Your task to perform on an android device: clear all cookies in the chrome app Image 0: 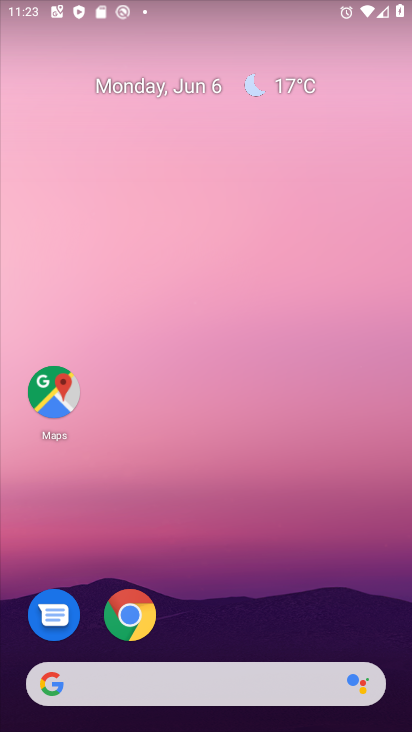
Step 0: click (128, 609)
Your task to perform on an android device: clear all cookies in the chrome app Image 1: 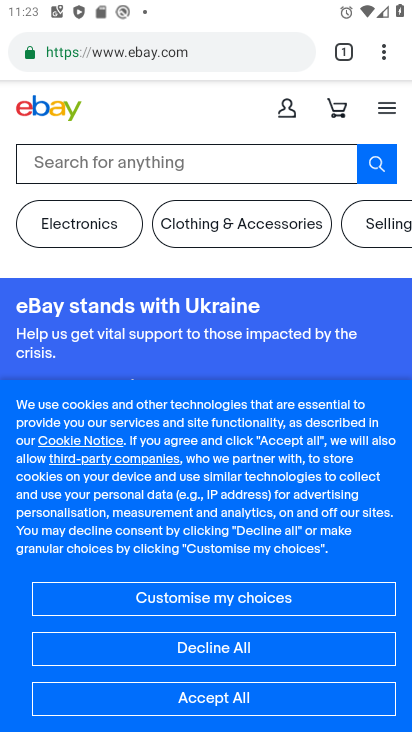
Step 1: click (208, 696)
Your task to perform on an android device: clear all cookies in the chrome app Image 2: 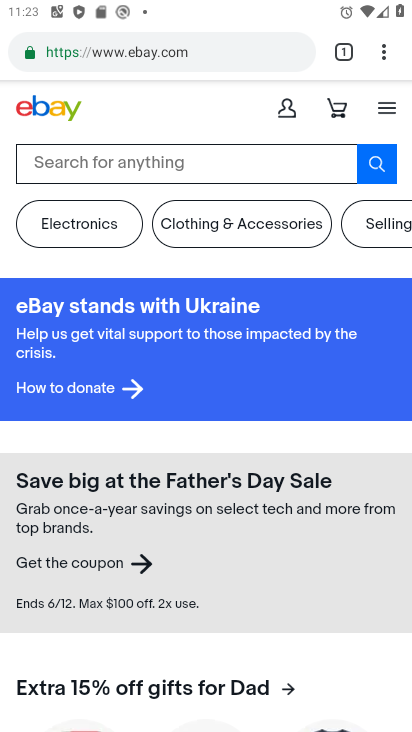
Step 2: click (387, 49)
Your task to perform on an android device: clear all cookies in the chrome app Image 3: 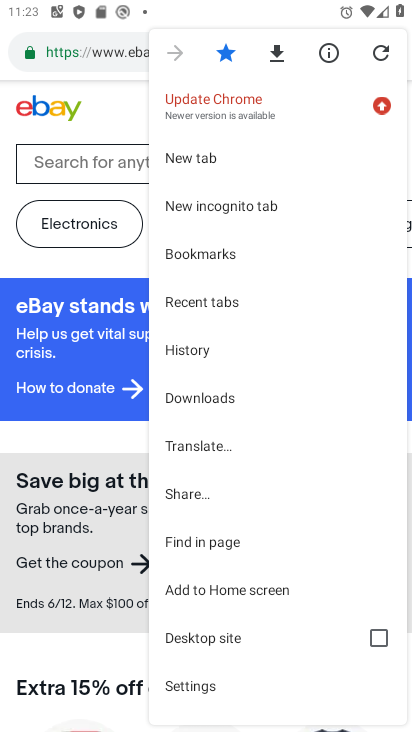
Step 3: click (212, 345)
Your task to perform on an android device: clear all cookies in the chrome app Image 4: 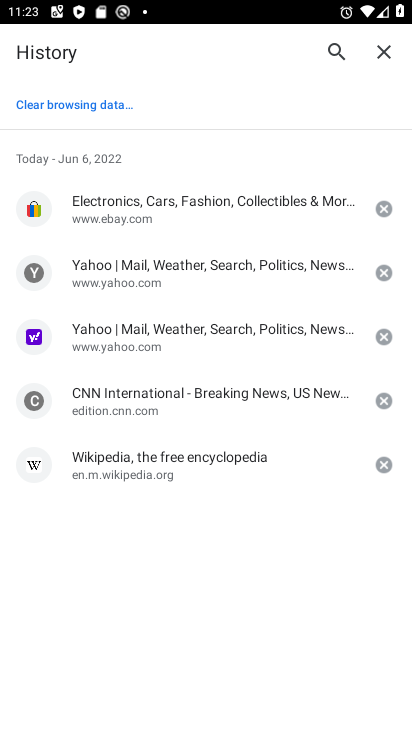
Step 4: click (65, 97)
Your task to perform on an android device: clear all cookies in the chrome app Image 5: 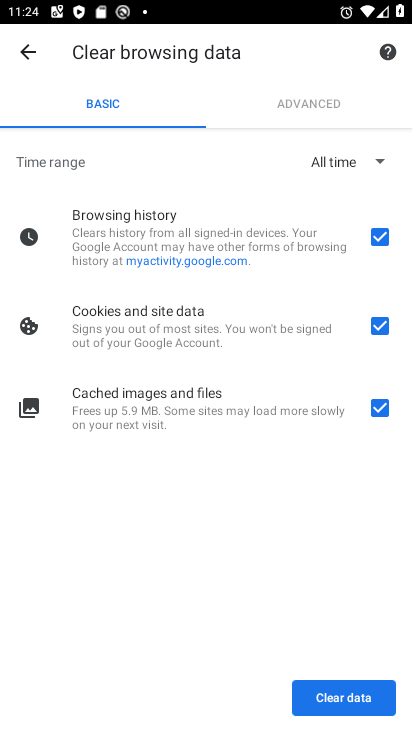
Step 5: click (348, 706)
Your task to perform on an android device: clear all cookies in the chrome app Image 6: 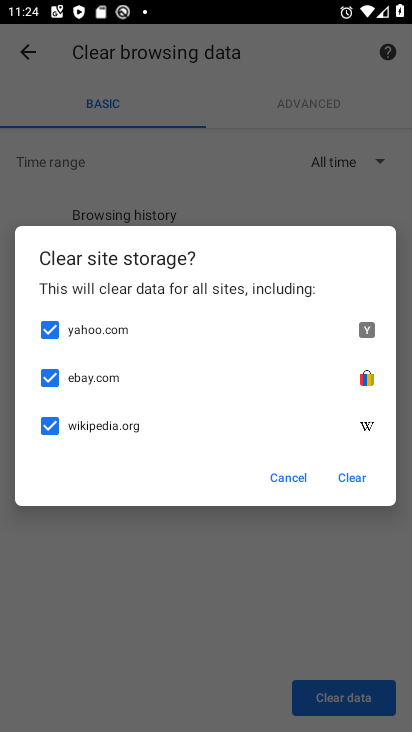
Step 6: click (359, 478)
Your task to perform on an android device: clear all cookies in the chrome app Image 7: 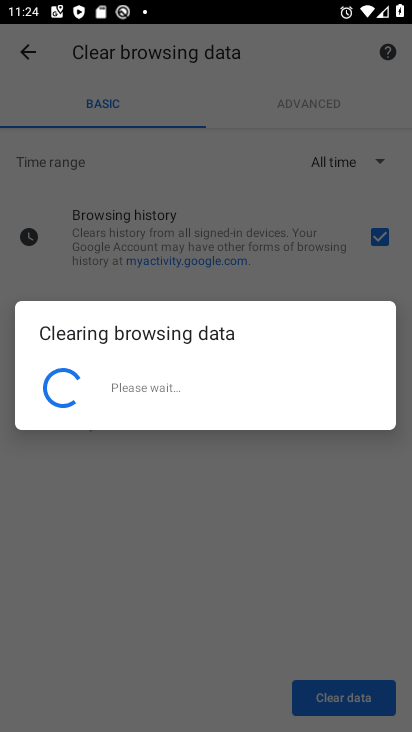
Step 7: task complete